Your task to perform on an android device: Play the last video I watched on Youtube Image 0: 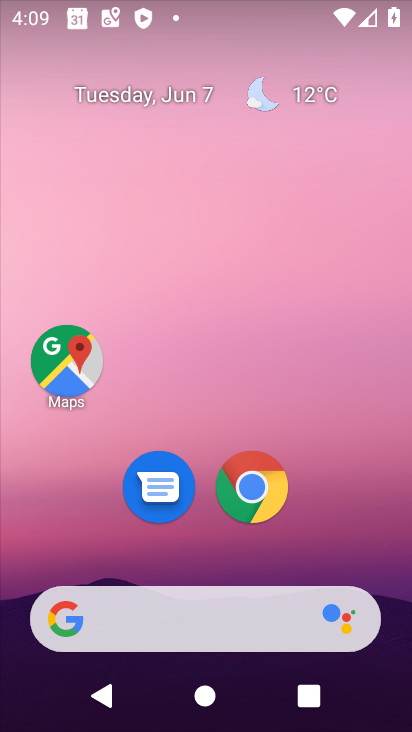
Step 0: drag from (206, 526) to (248, 96)
Your task to perform on an android device: Play the last video I watched on Youtube Image 1: 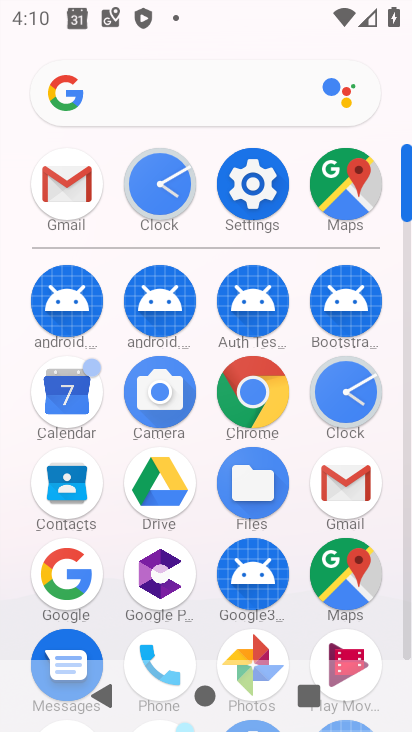
Step 1: drag from (227, 566) to (290, 89)
Your task to perform on an android device: Play the last video I watched on Youtube Image 2: 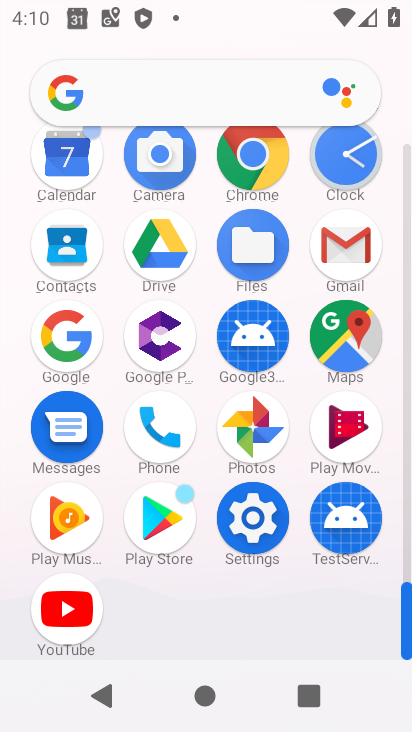
Step 2: click (75, 611)
Your task to perform on an android device: Play the last video I watched on Youtube Image 3: 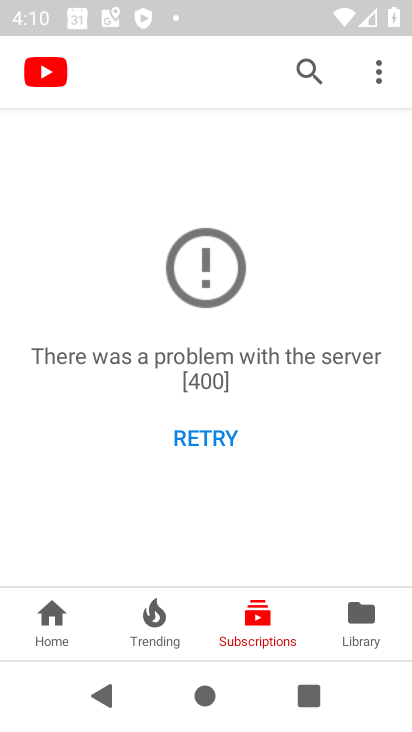
Step 3: click (359, 615)
Your task to perform on an android device: Play the last video I watched on Youtube Image 4: 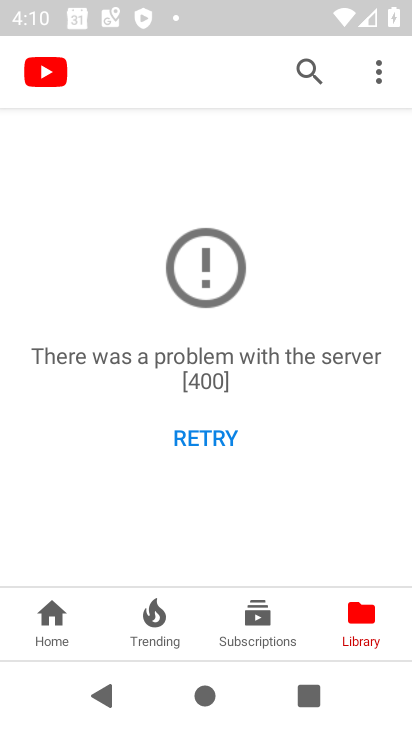
Step 4: task complete